Your task to perform on an android device: Open the phone app and click the voicemail tab. Image 0: 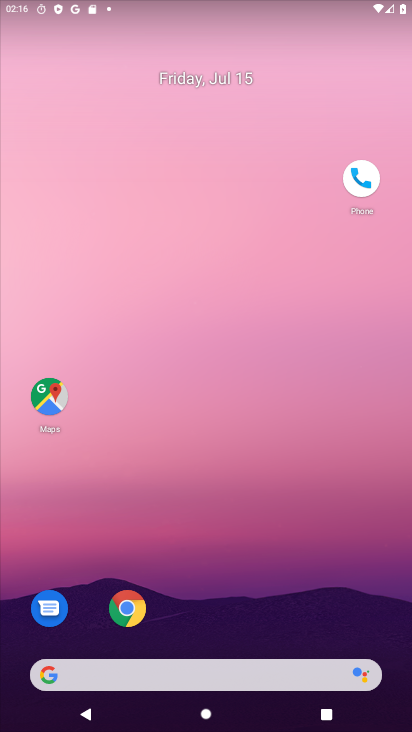
Step 0: drag from (201, 497) to (234, 100)
Your task to perform on an android device: Open the phone app and click the voicemail tab. Image 1: 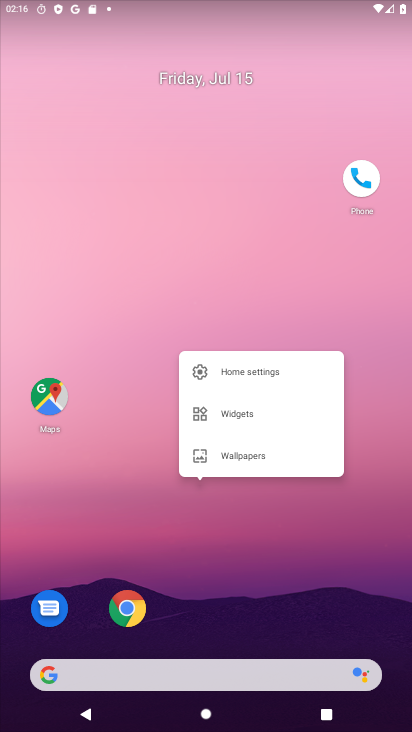
Step 1: click (188, 631)
Your task to perform on an android device: Open the phone app and click the voicemail tab. Image 2: 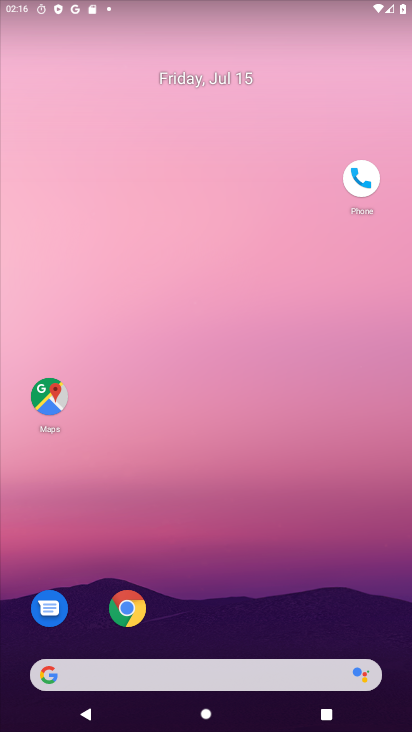
Step 2: drag from (182, 644) to (232, 87)
Your task to perform on an android device: Open the phone app and click the voicemail tab. Image 3: 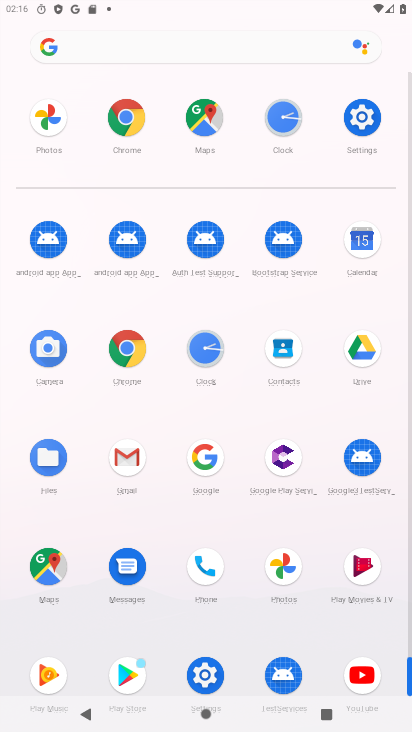
Step 3: click (198, 579)
Your task to perform on an android device: Open the phone app and click the voicemail tab. Image 4: 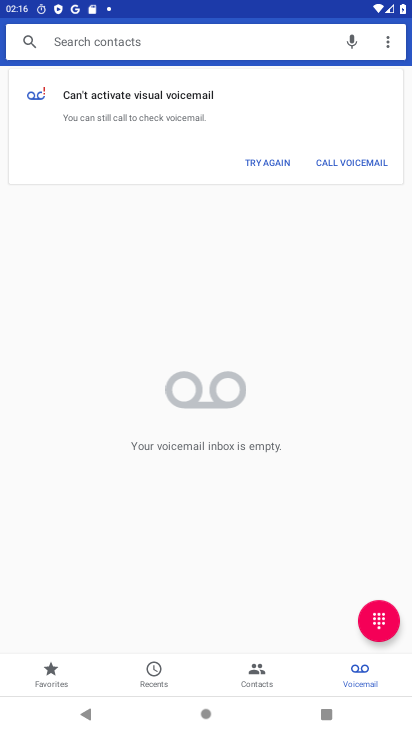
Step 4: click (367, 672)
Your task to perform on an android device: Open the phone app and click the voicemail tab. Image 5: 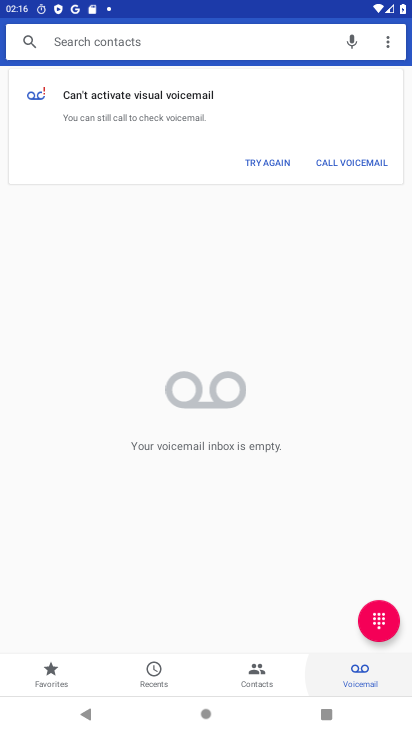
Step 5: task complete